Your task to perform on an android device: Show the shopping cart on ebay. Search for usb-c to usb-a on ebay, select the first entry, and add it to the cart. Image 0: 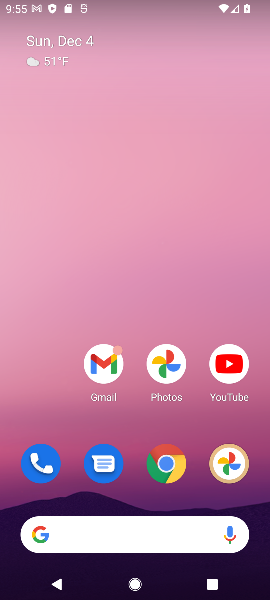
Step 0: click (119, 543)
Your task to perform on an android device: Show the shopping cart on ebay. Search for usb-c to usb-a on ebay, select the first entry, and add it to the cart. Image 1: 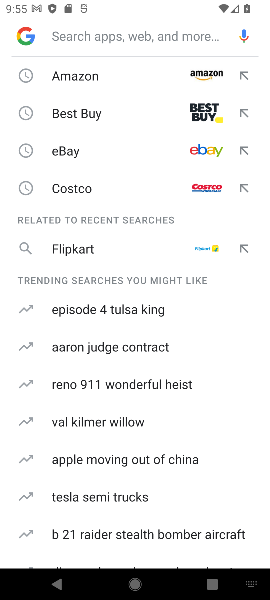
Step 1: click (96, 156)
Your task to perform on an android device: Show the shopping cart on ebay. Search for usb-c to usb-a on ebay, select the first entry, and add it to the cart. Image 2: 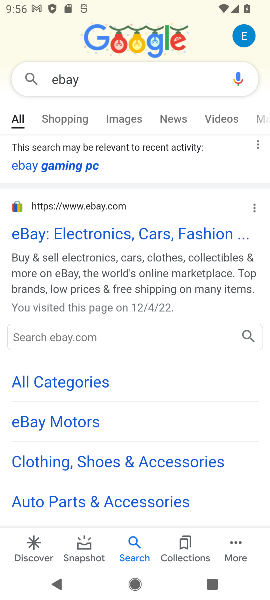
Step 2: click (122, 244)
Your task to perform on an android device: Show the shopping cart on ebay. Search for usb-c to usb-a on ebay, select the first entry, and add it to the cart. Image 3: 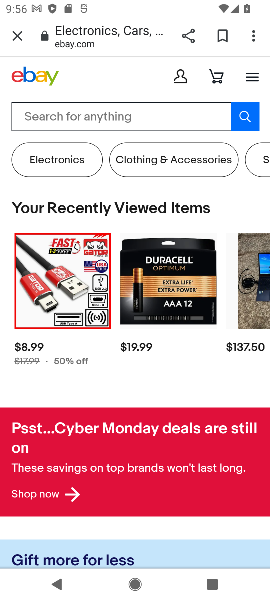
Step 3: task complete